Your task to perform on an android device: Go to Android settings Image 0: 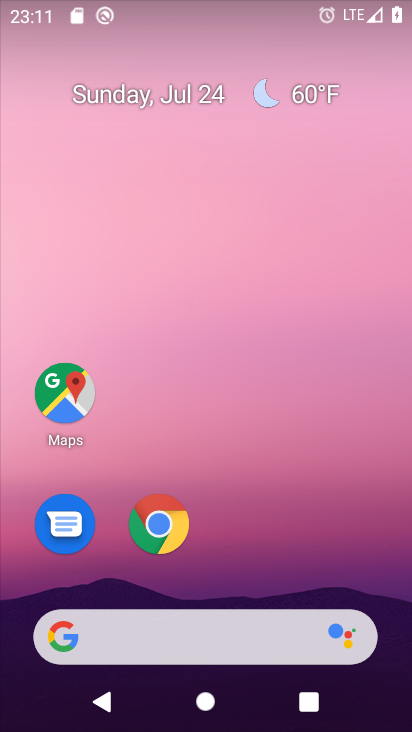
Step 0: drag from (252, 527) to (297, 36)
Your task to perform on an android device: Go to Android settings Image 1: 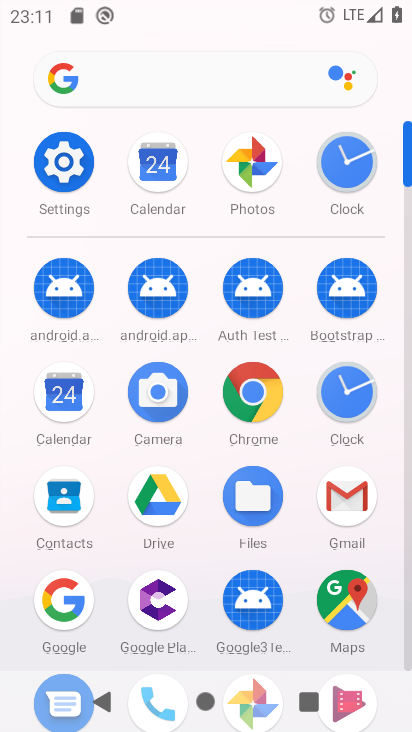
Step 1: click (67, 164)
Your task to perform on an android device: Go to Android settings Image 2: 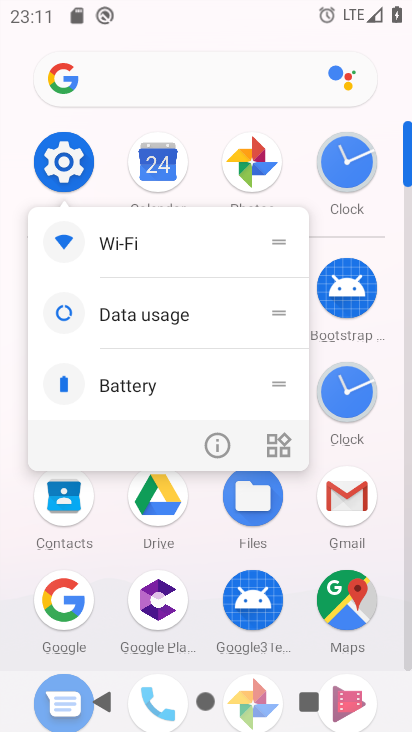
Step 2: click (67, 164)
Your task to perform on an android device: Go to Android settings Image 3: 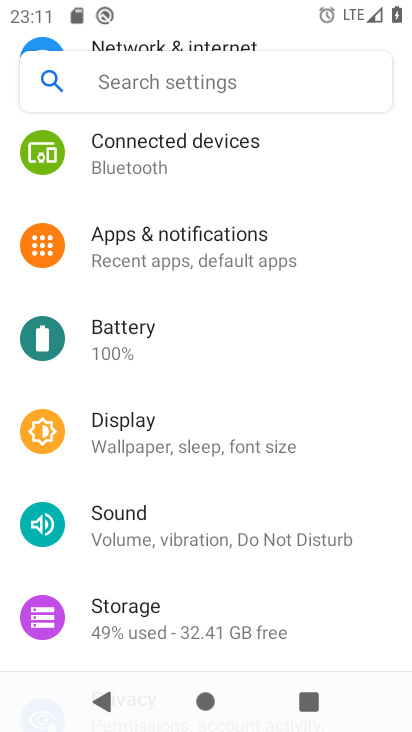
Step 3: drag from (216, 572) to (266, 5)
Your task to perform on an android device: Go to Android settings Image 4: 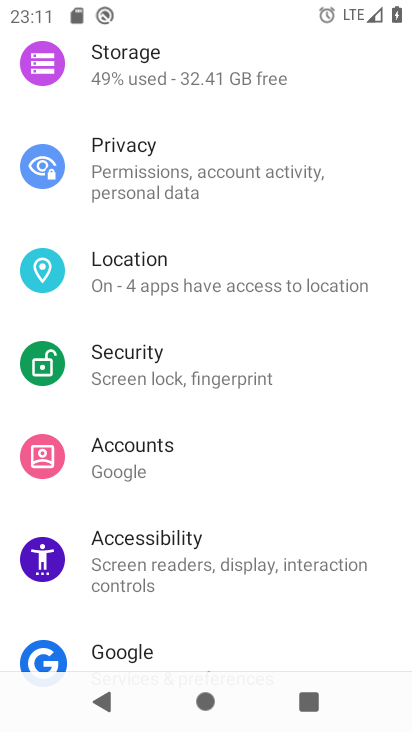
Step 4: drag from (193, 610) to (258, 87)
Your task to perform on an android device: Go to Android settings Image 5: 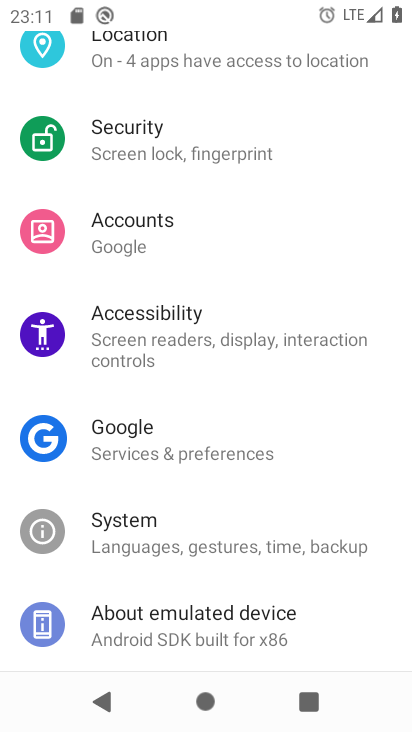
Step 5: click (206, 611)
Your task to perform on an android device: Go to Android settings Image 6: 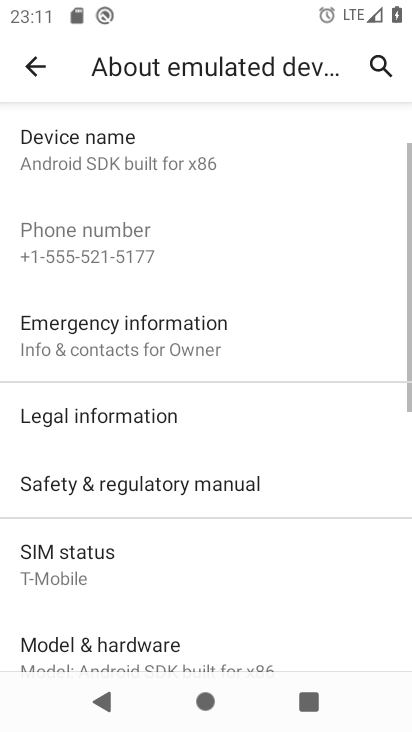
Step 6: task complete